Your task to perform on an android device: Open settings on Google Maps Image 0: 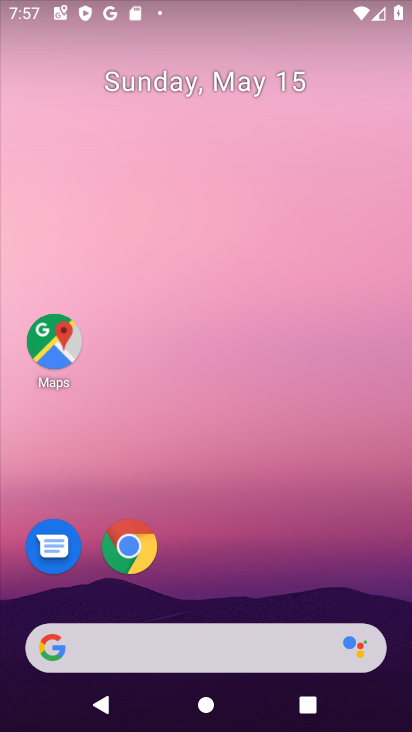
Step 0: click (46, 367)
Your task to perform on an android device: Open settings on Google Maps Image 1: 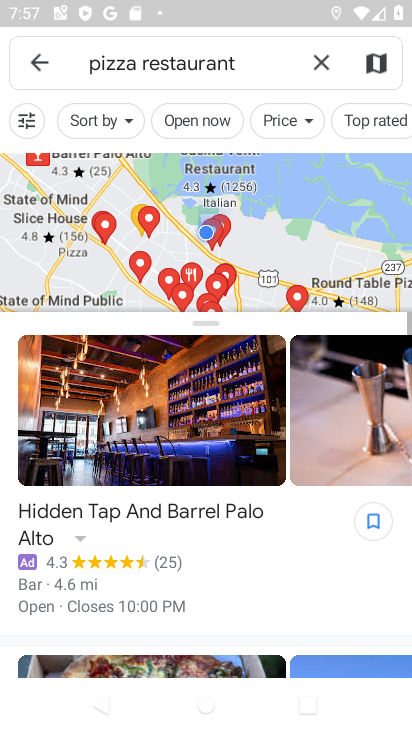
Step 1: click (35, 59)
Your task to perform on an android device: Open settings on Google Maps Image 2: 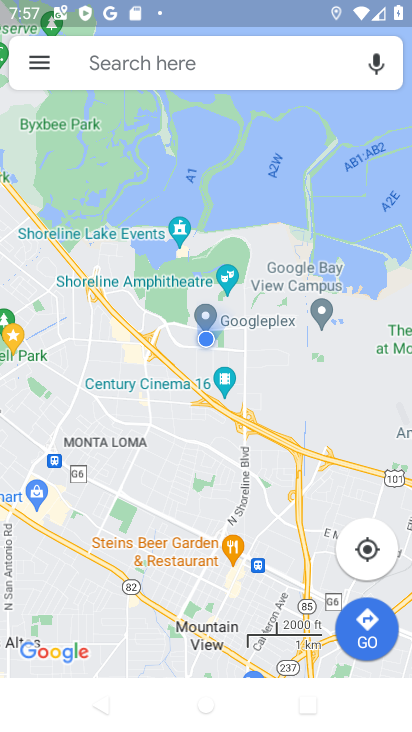
Step 2: click (35, 57)
Your task to perform on an android device: Open settings on Google Maps Image 3: 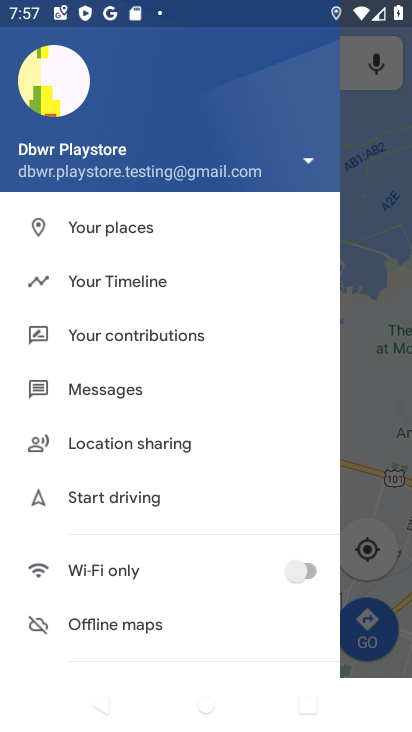
Step 3: drag from (197, 568) to (202, 186)
Your task to perform on an android device: Open settings on Google Maps Image 4: 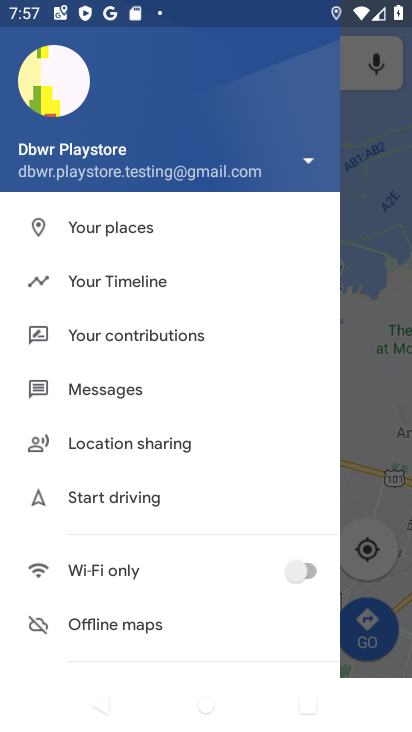
Step 4: drag from (153, 466) to (219, 73)
Your task to perform on an android device: Open settings on Google Maps Image 5: 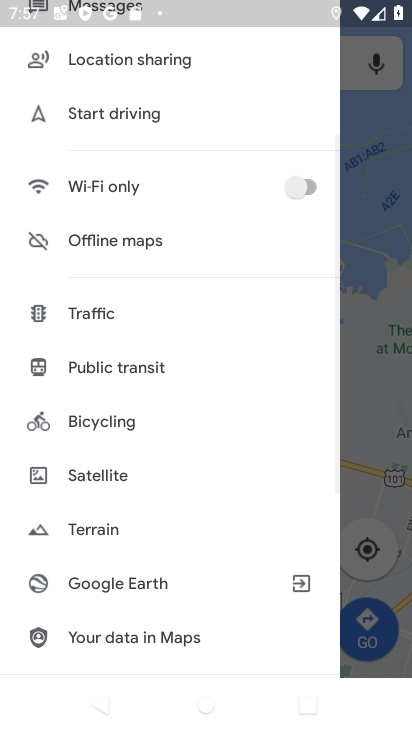
Step 5: drag from (186, 386) to (239, 43)
Your task to perform on an android device: Open settings on Google Maps Image 6: 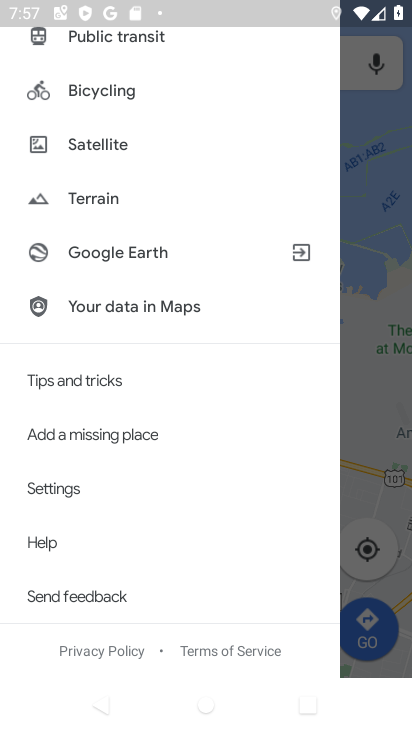
Step 6: click (91, 490)
Your task to perform on an android device: Open settings on Google Maps Image 7: 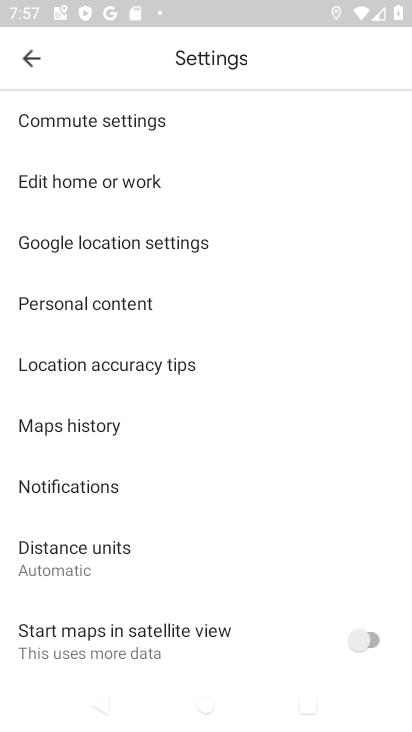
Step 7: task complete